Your task to perform on an android device: see tabs open on other devices in the chrome app Image 0: 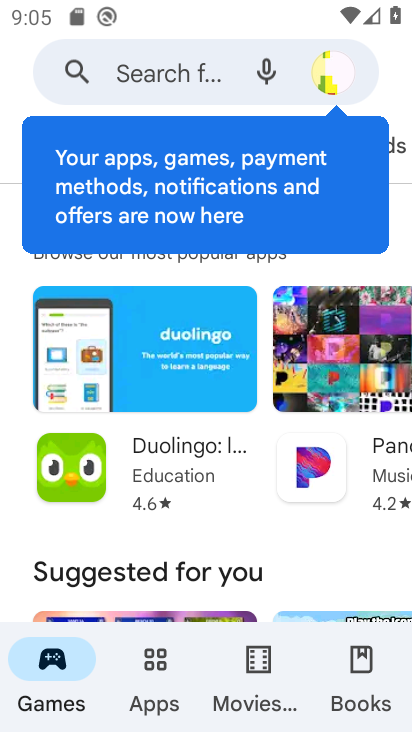
Step 0: press home button
Your task to perform on an android device: see tabs open on other devices in the chrome app Image 1: 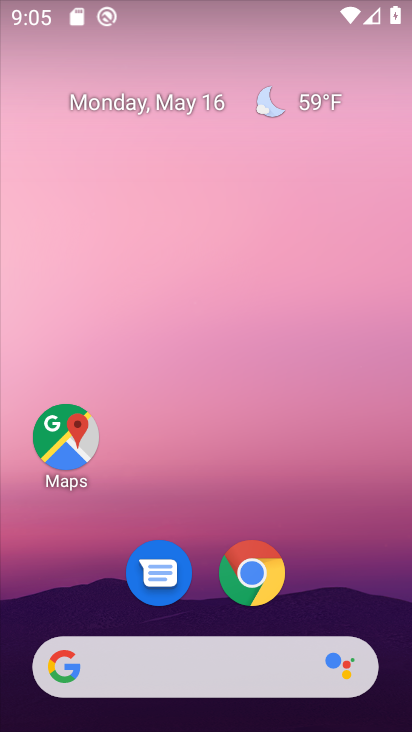
Step 1: click (229, 595)
Your task to perform on an android device: see tabs open on other devices in the chrome app Image 2: 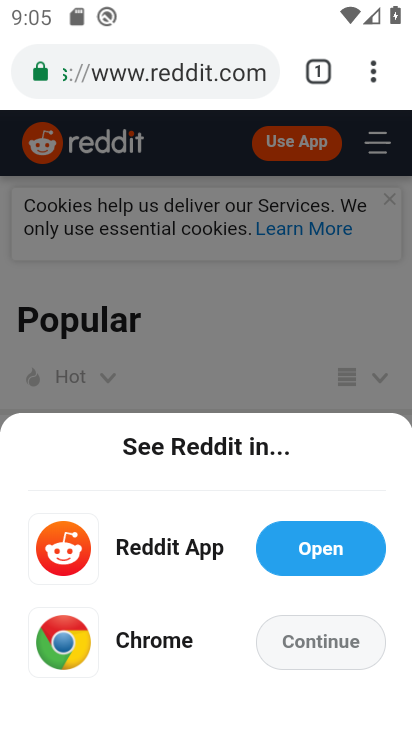
Step 2: task complete